Your task to perform on an android device: Open Wikipedia Image 0: 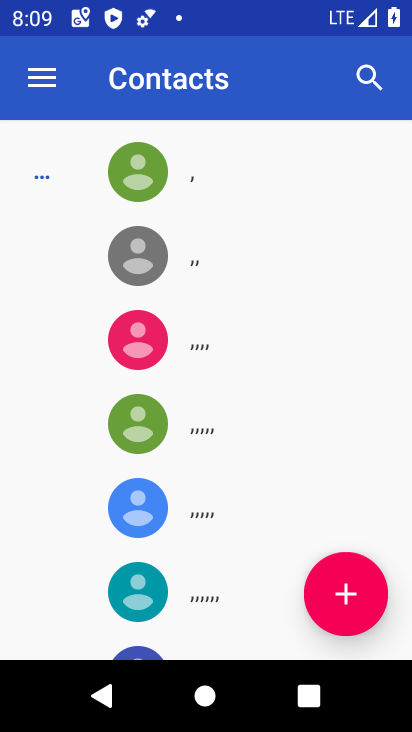
Step 0: press home button
Your task to perform on an android device: Open Wikipedia Image 1: 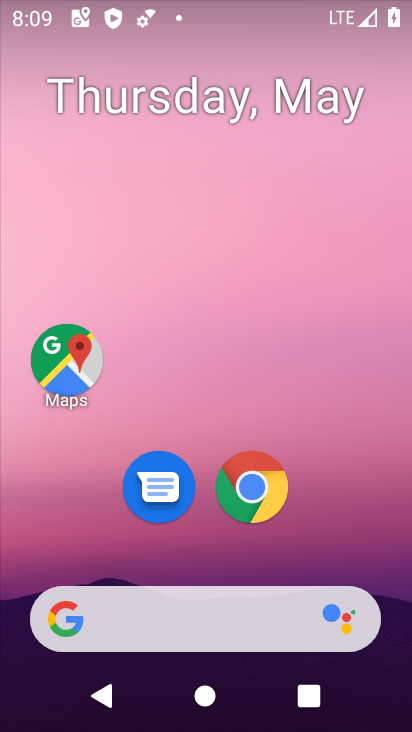
Step 1: click (259, 490)
Your task to perform on an android device: Open Wikipedia Image 2: 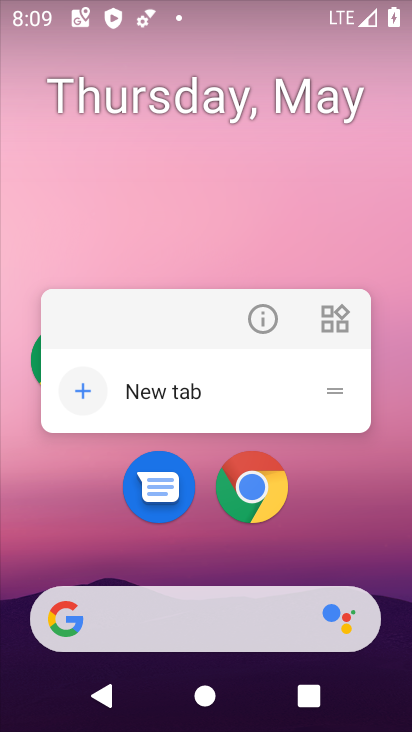
Step 2: click (269, 319)
Your task to perform on an android device: Open Wikipedia Image 3: 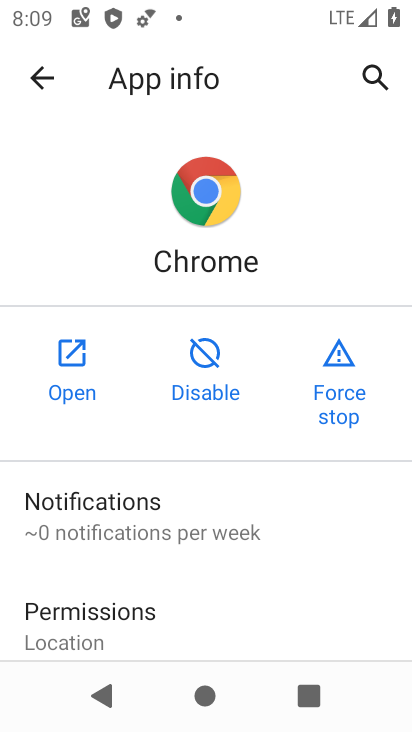
Step 3: click (73, 371)
Your task to perform on an android device: Open Wikipedia Image 4: 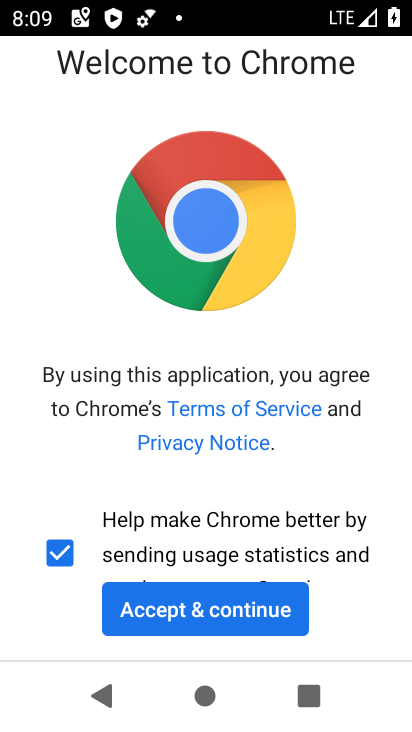
Step 4: click (179, 603)
Your task to perform on an android device: Open Wikipedia Image 5: 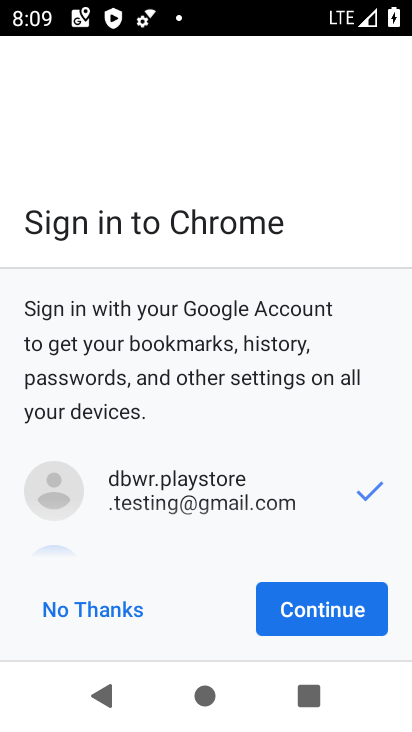
Step 5: click (292, 608)
Your task to perform on an android device: Open Wikipedia Image 6: 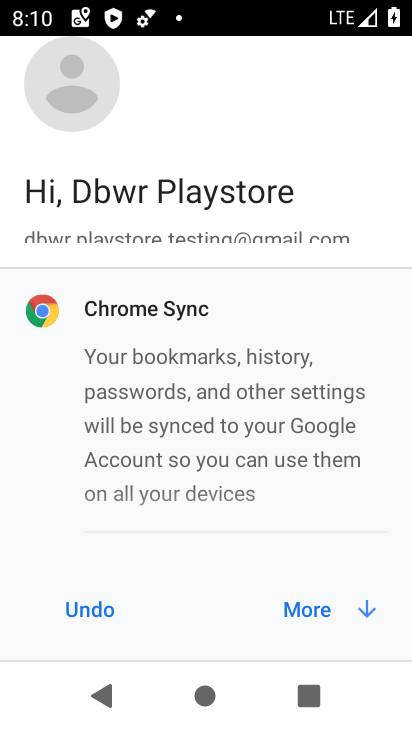
Step 6: click (307, 612)
Your task to perform on an android device: Open Wikipedia Image 7: 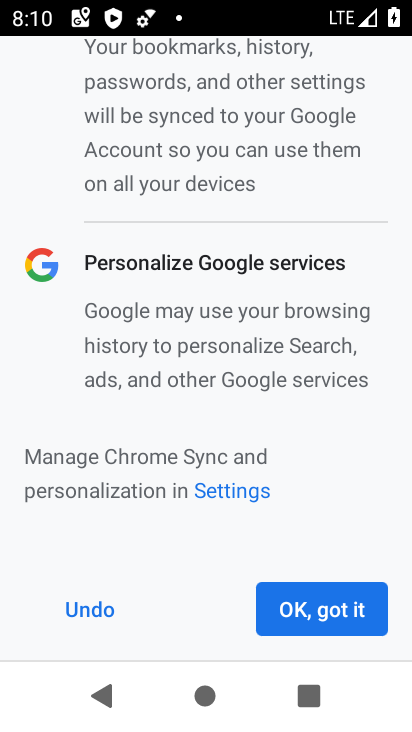
Step 7: click (304, 613)
Your task to perform on an android device: Open Wikipedia Image 8: 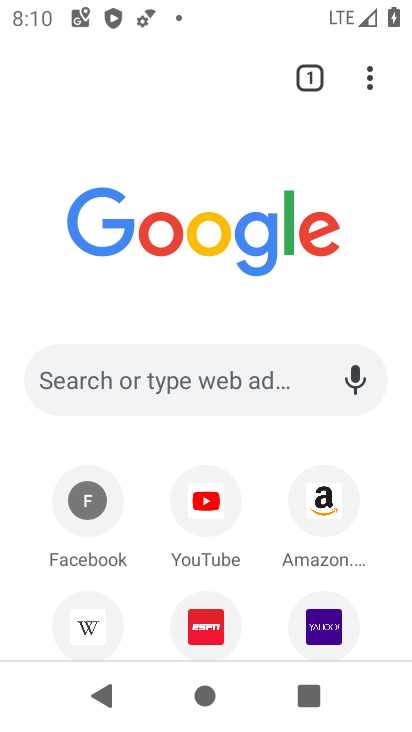
Step 8: click (89, 603)
Your task to perform on an android device: Open Wikipedia Image 9: 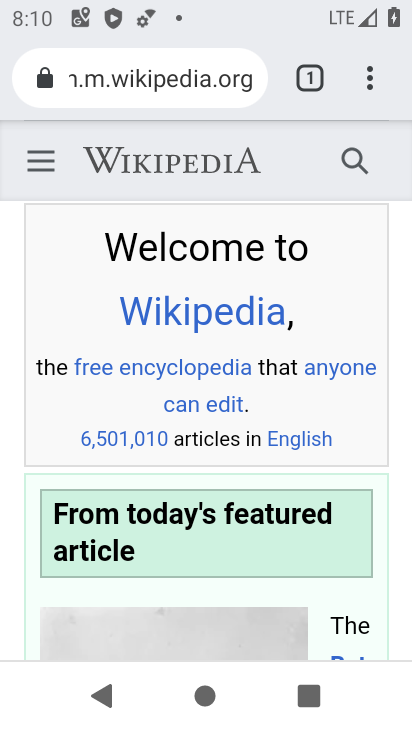
Step 9: drag from (168, 584) to (209, 308)
Your task to perform on an android device: Open Wikipedia Image 10: 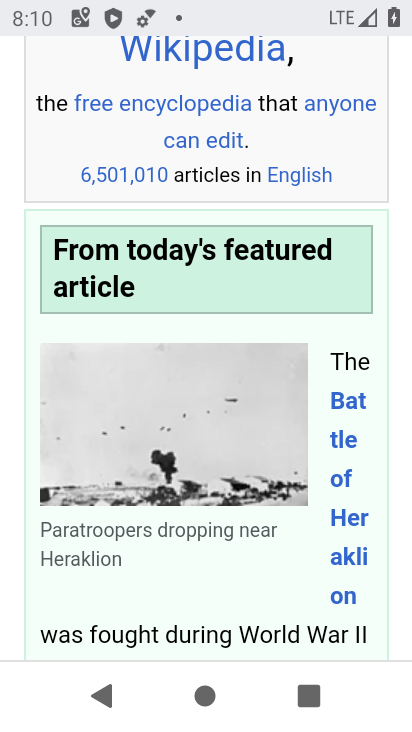
Step 10: drag from (204, 249) to (186, 715)
Your task to perform on an android device: Open Wikipedia Image 11: 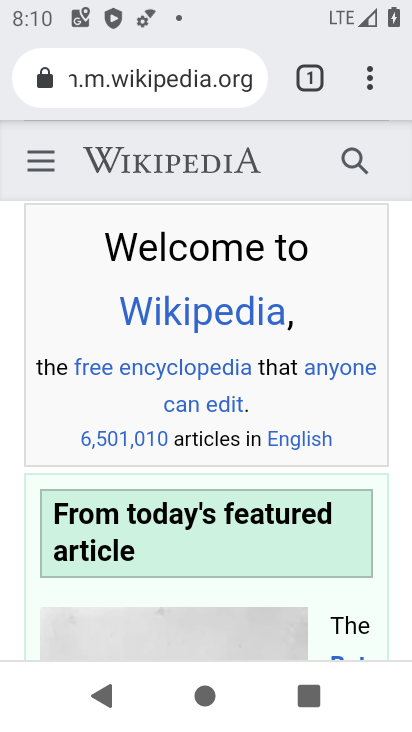
Step 11: drag from (214, 595) to (275, 39)
Your task to perform on an android device: Open Wikipedia Image 12: 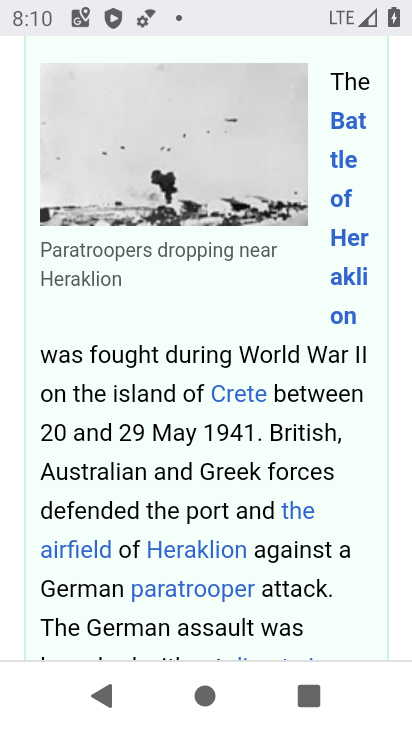
Step 12: drag from (259, 551) to (293, 174)
Your task to perform on an android device: Open Wikipedia Image 13: 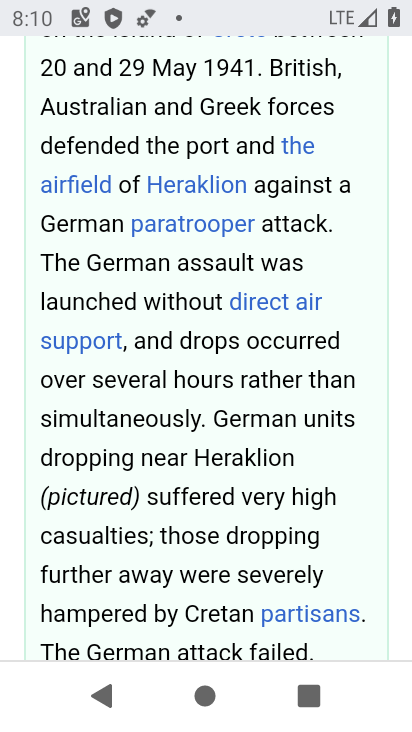
Step 13: drag from (275, 158) to (243, 725)
Your task to perform on an android device: Open Wikipedia Image 14: 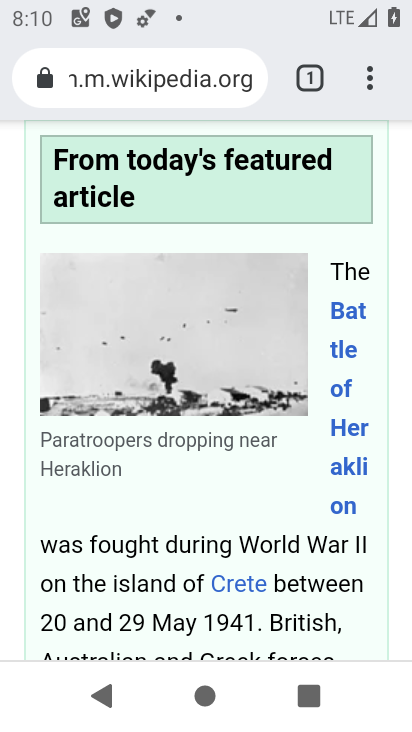
Step 14: drag from (272, 155) to (324, 636)
Your task to perform on an android device: Open Wikipedia Image 15: 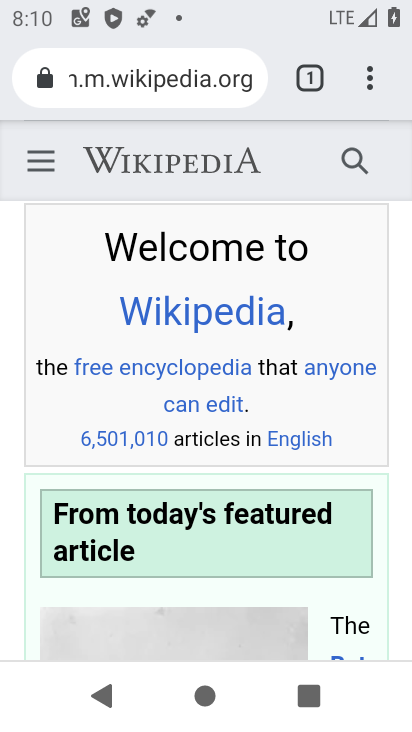
Step 15: click (368, 82)
Your task to perform on an android device: Open Wikipedia Image 16: 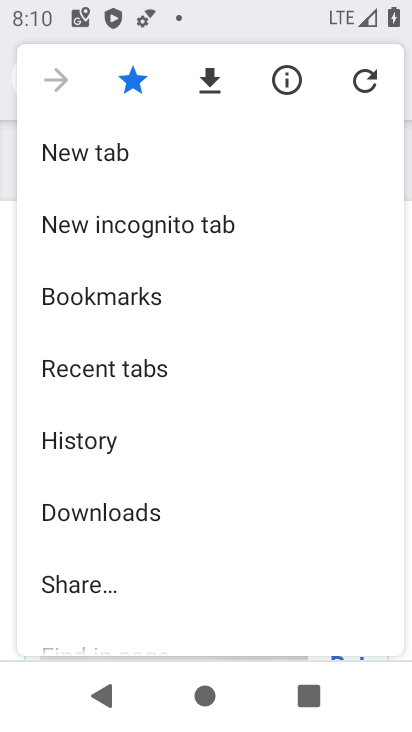
Step 16: press back button
Your task to perform on an android device: Open Wikipedia Image 17: 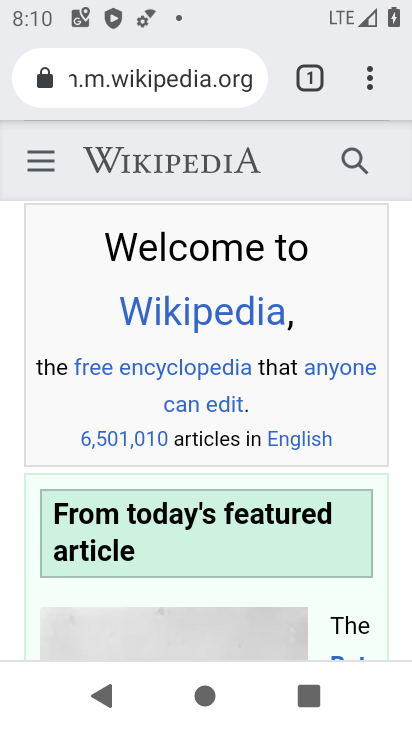
Step 17: click (326, 89)
Your task to perform on an android device: Open Wikipedia Image 18: 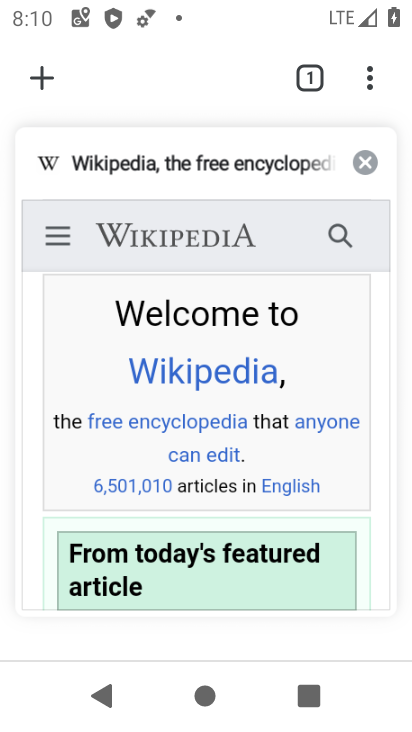
Step 18: click (40, 78)
Your task to perform on an android device: Open Wikipedia Image 19: 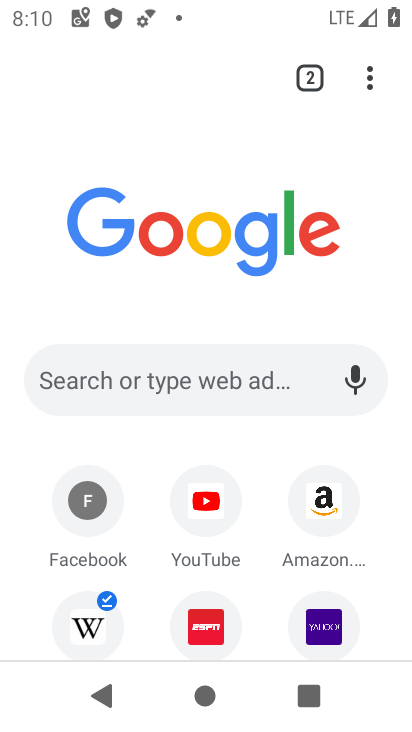
Step 19: drag from (265, 510) to (283, 220)
Your task to perform on an android device: Open Wikipedia Image 20: 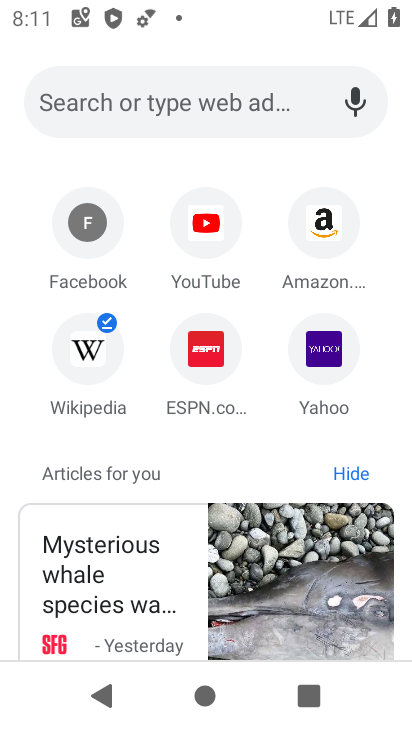
Step 20: click (94, 344)
Your task to perform on an android device: Open Wikipedia Image 21: 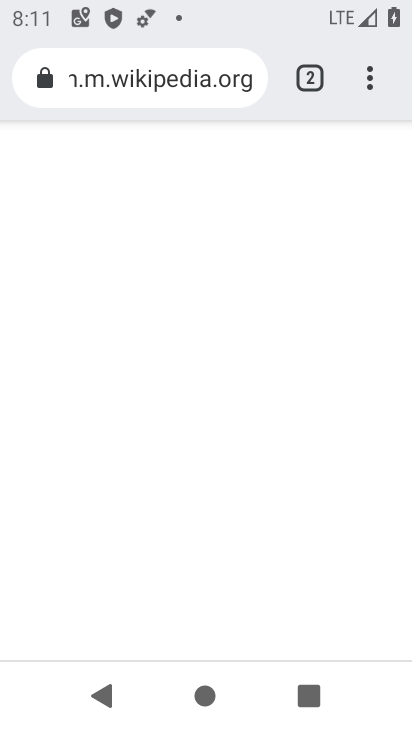
Step 21: task complete